Your task to perform on an android device: Open location settings Image 0: 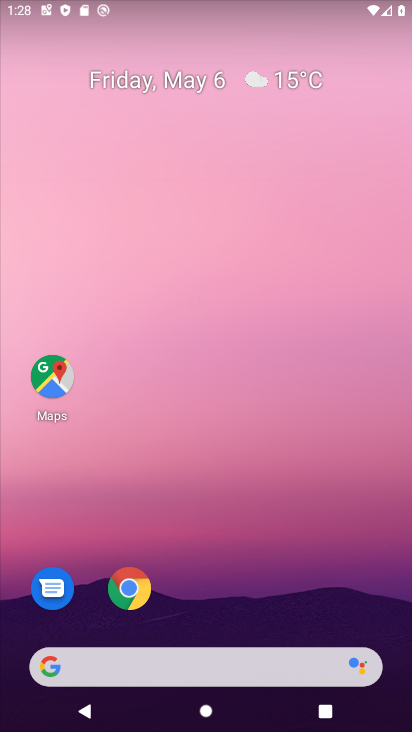
Step 0: drag from (204, 585) to (282, 388)
Your task to perform on an android device: Open location settings Image 1: 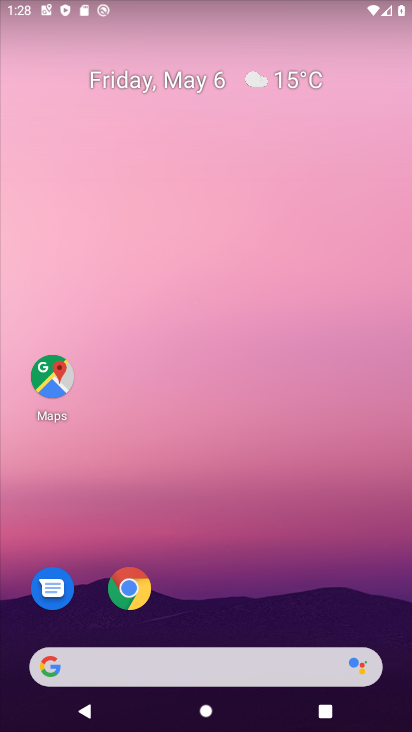
Step 1: drag from (189, 621) to (250, 52)
Your task to perform on an android device: Open location settings Image 2: 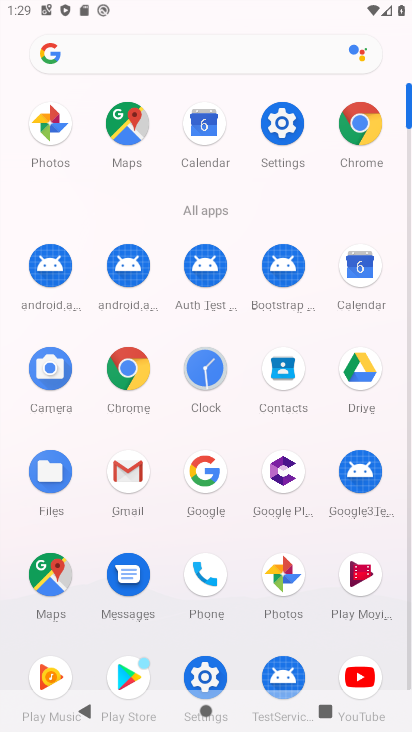
Step 2: click (197, 671)
Your task to perform on an android device: Open location settings Image 3: 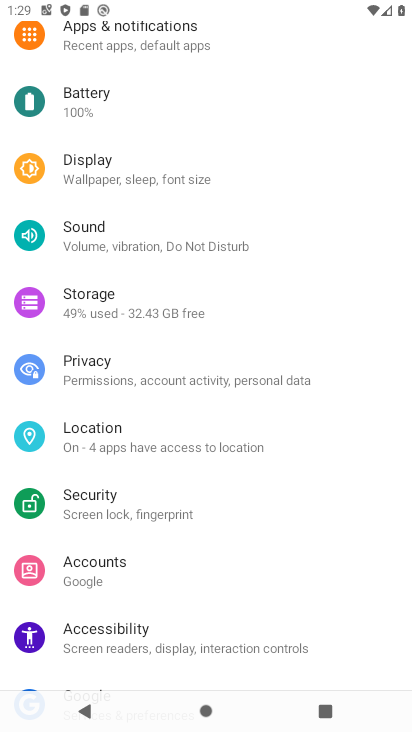
Step 3: drag from (231, 630) to (261, 214)
Your task to perform on an android device: Open location settings Image 4: 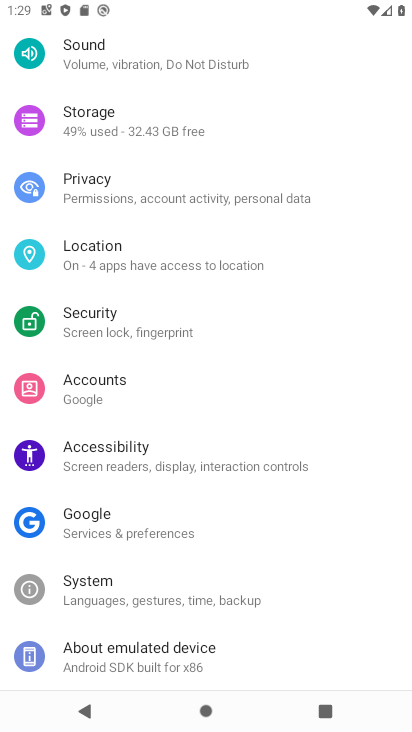
Step 4: click (116, 239)
Your task to perform on an android device: Open location settings Image 5: 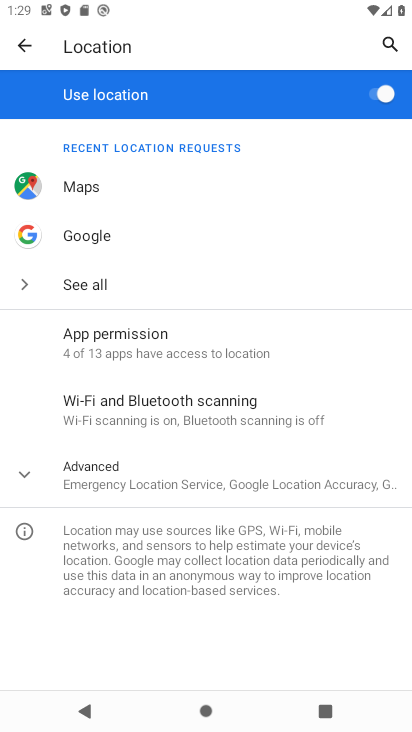
Step 5: task complete